Your task to perform on an android device: Go to wifi settings Image 0: 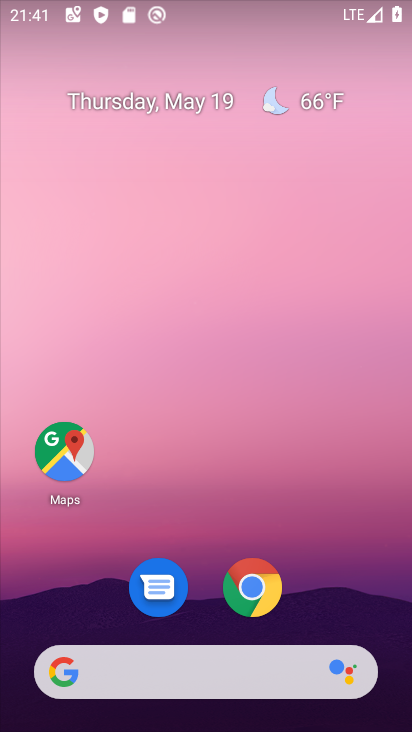
Step 0: press home button
Your task to perform on an android device: Go to wifi settings Image 1: 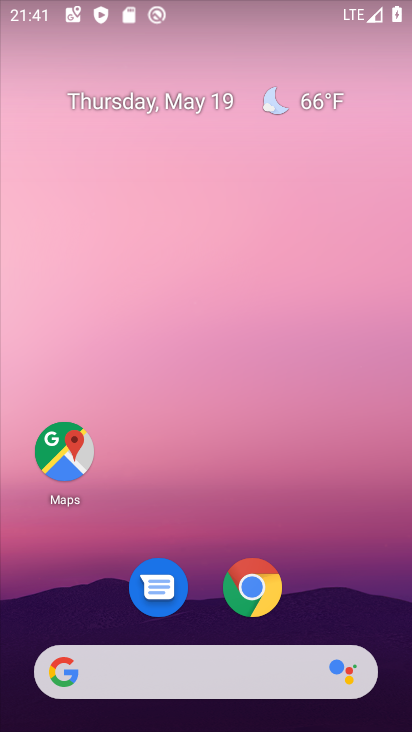
Step 1: drag from (277, 360) to (253, 230)
Your task to perform on an android device: Go to wifi settings Image 2: 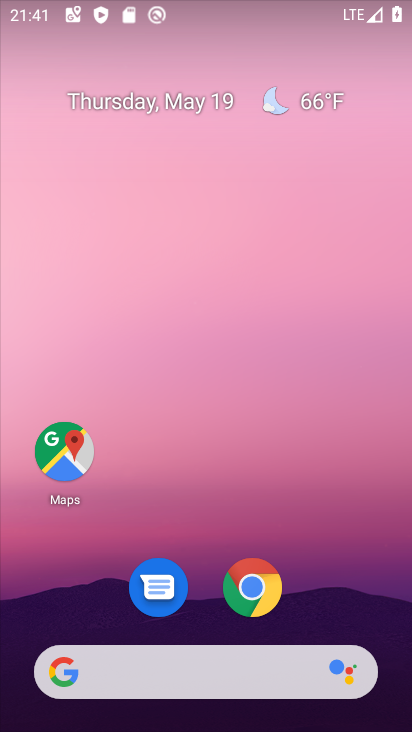
Step 2: drag from (212, 629) to (229, 81)
Your task to perform on an android device: Go to wifi settings Image 3: 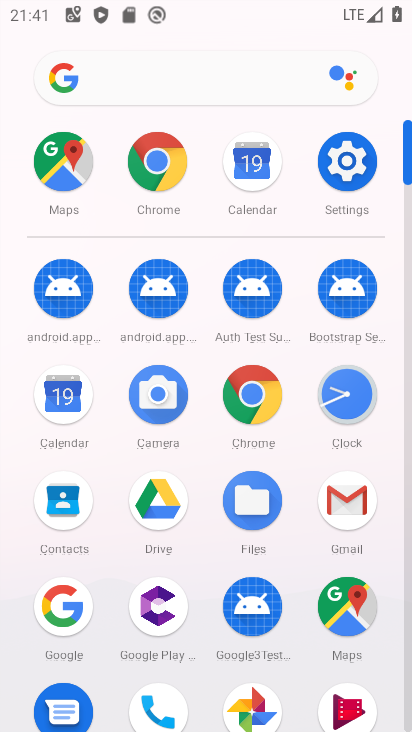
Step 3: click (343, 175)
Your task to perform on an android device: Go to wifi settings Image 4: 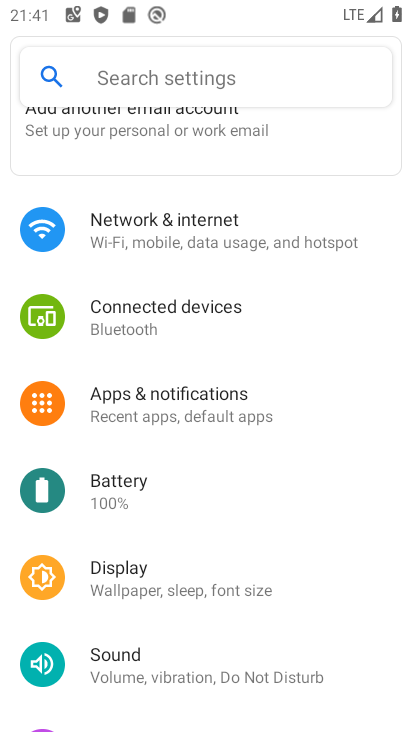
Step 4: click (203, 231)
Your task to perform on an android device: Go to wifi settings Image 5: 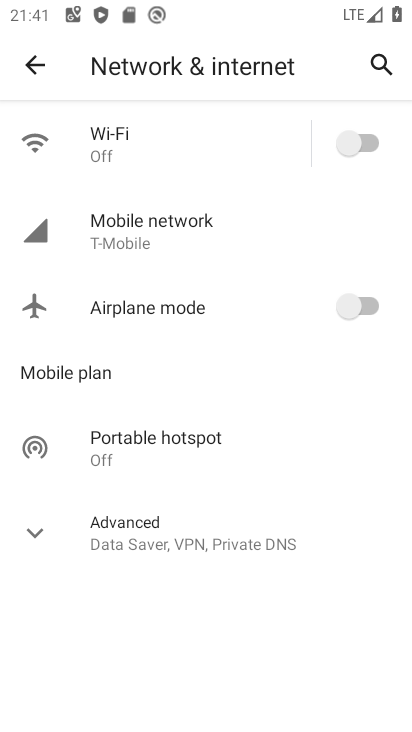
Step 5: click (163, 155)
Your task to perform on an android device: Go to wifi settings Image 6: 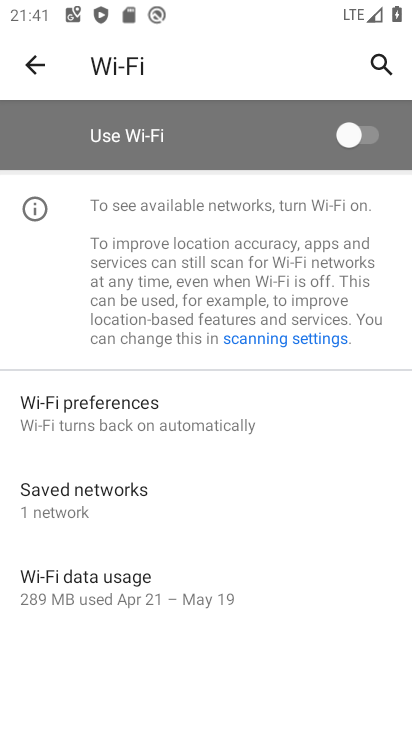
Step 6: task complete